Your task to perform on an android device: move a message to another label in the gmail app Image 0: 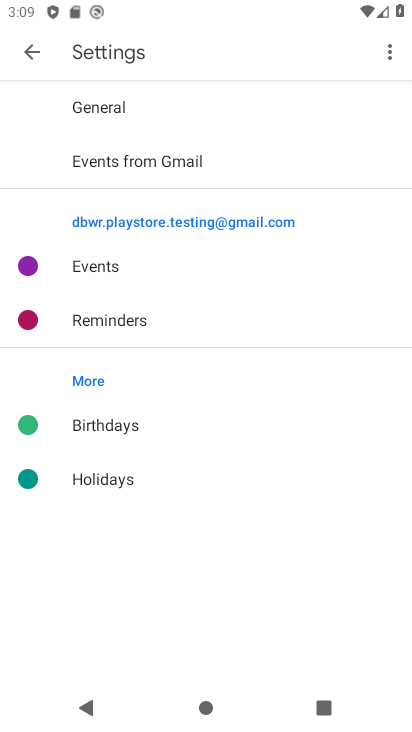
Step 0: press home button
Your task to perform on an android device: move a message to another label in the gmail app Image 1: 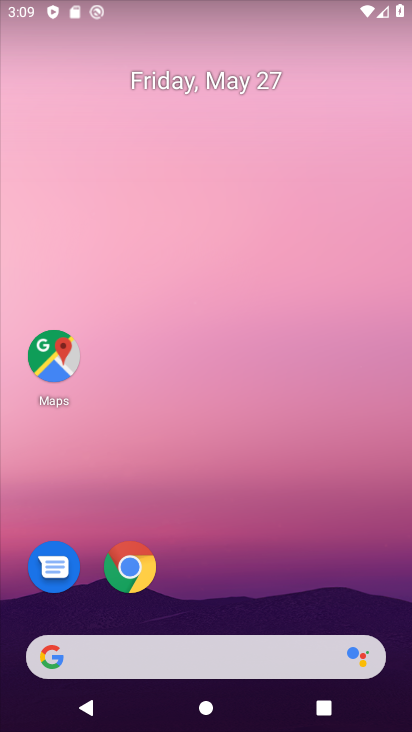
Step 1: drag from (375, 588) to (291, 94)
Your task to perform on an android device: move a message to another label in the gmail app Image 2: 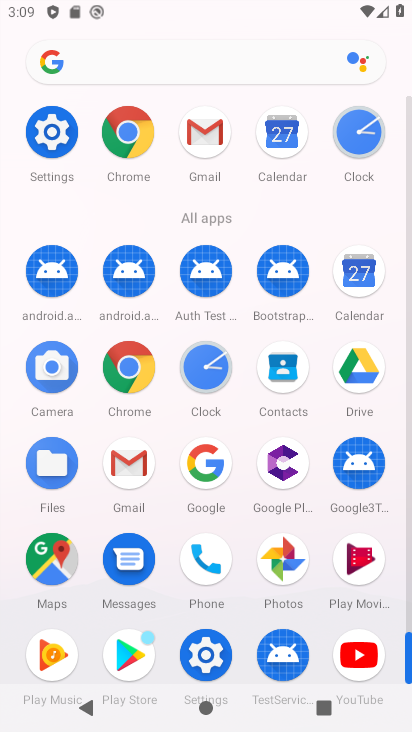
Step 2: click (126, 466)
Your task to perform on an android device: move a message to another label in the gmail app Image 3: 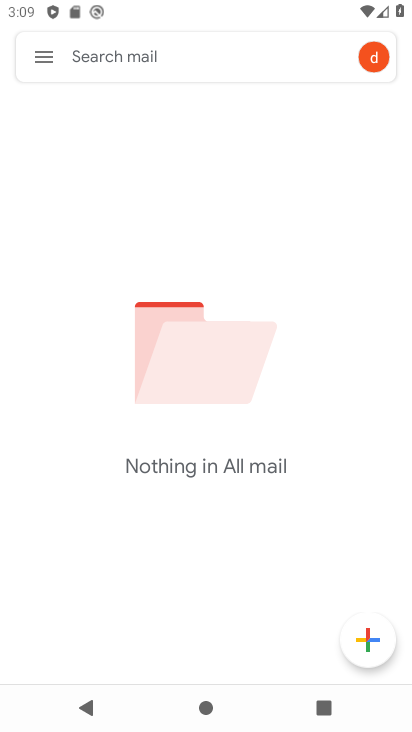
Step 3: click (45, 56)
Your task to perform on an android device: move a message to another label in the gmail app Image 4: 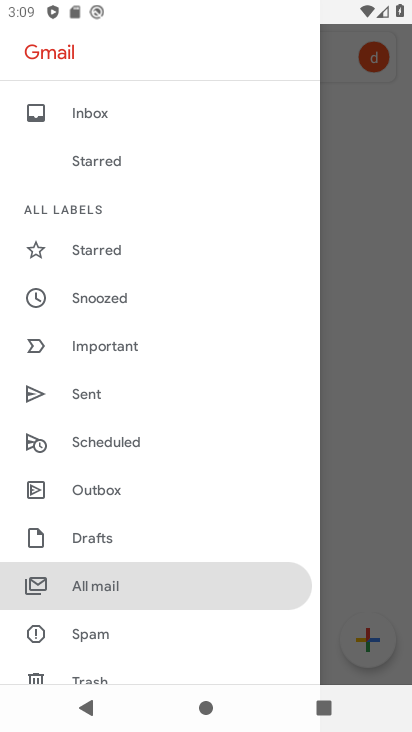
Step 4: click (132, 575)
Your task to perform on an android device: move a message to another label in the gmail app Image 5: 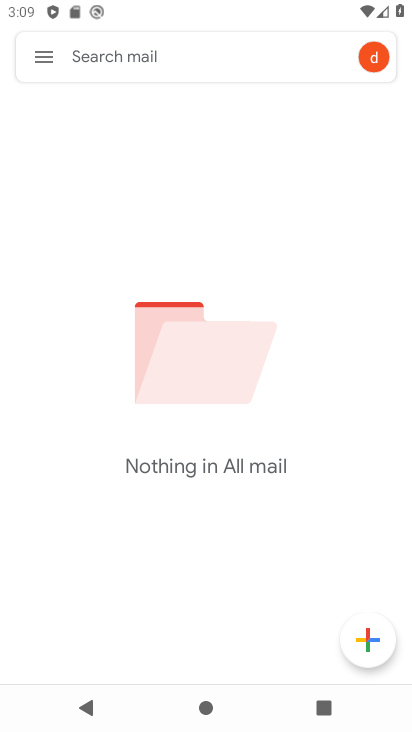
Step 5: task complete